Your task to perform on an android device: What is the news today? Image 0: 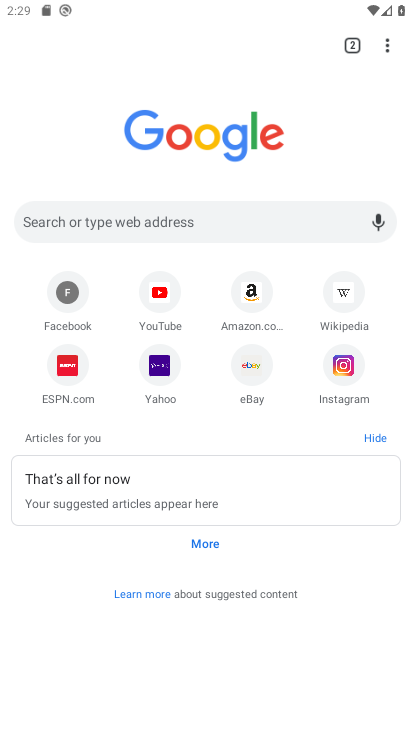
Step 0: click (114, 214)
Your task to perform on an android device: What is the news today? Image 1: 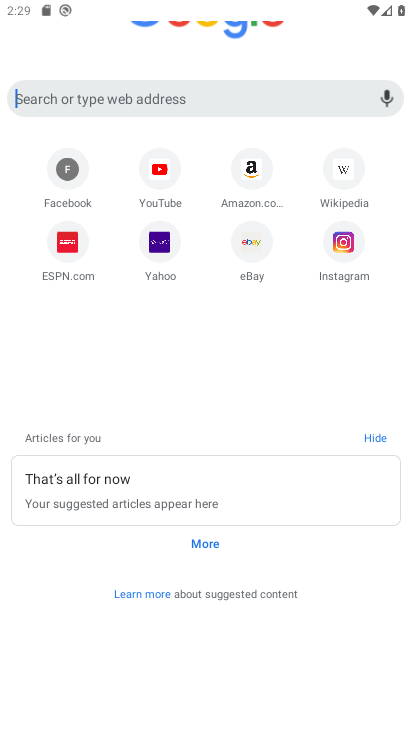
Step 1: click (113, 209)
Your task to perform on an android device: What is the news today? Image 2: 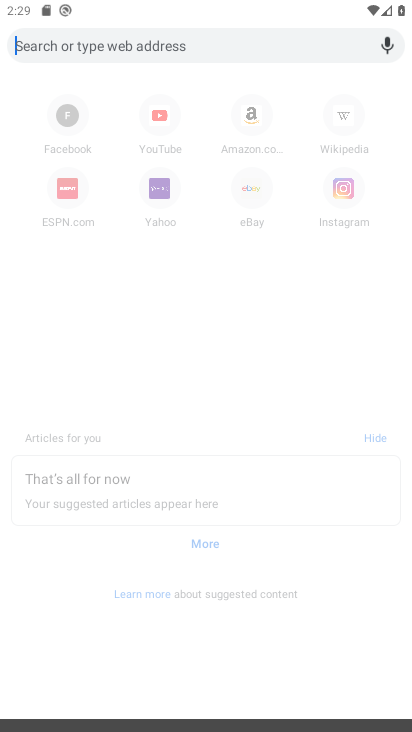
Step 2: click (115, 209)
Your task to perform on an android device: What is the news today? Image 3: 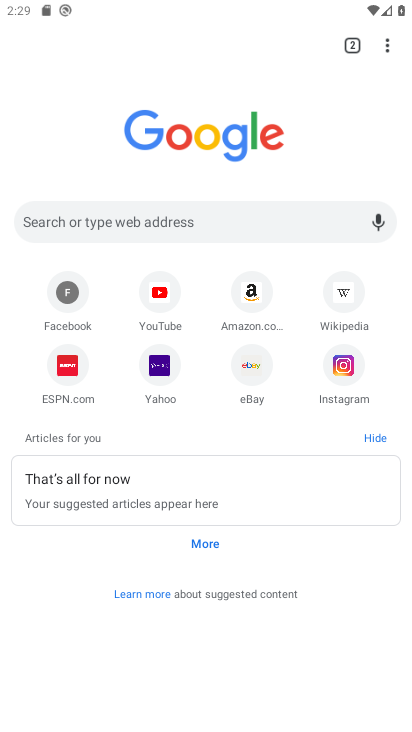
Step 3: drag from (146, 495) to (128, 173)
Your task to perform on an android device: What is the news today? Image 4: 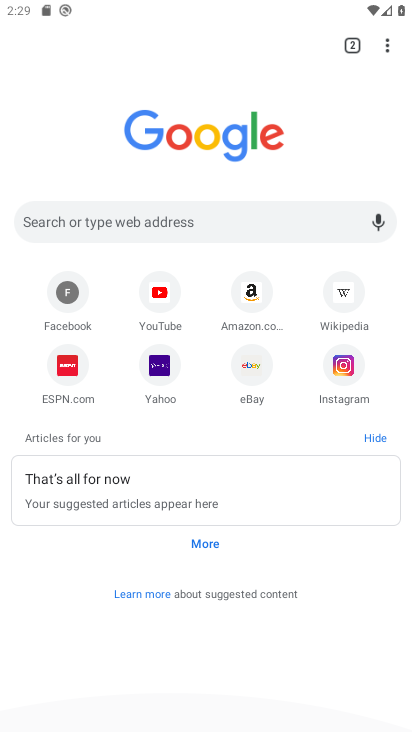
Step 4: drag from (182, 487) to (164, 196)
Your task to perform on an android device: What is the news today? Image 5: 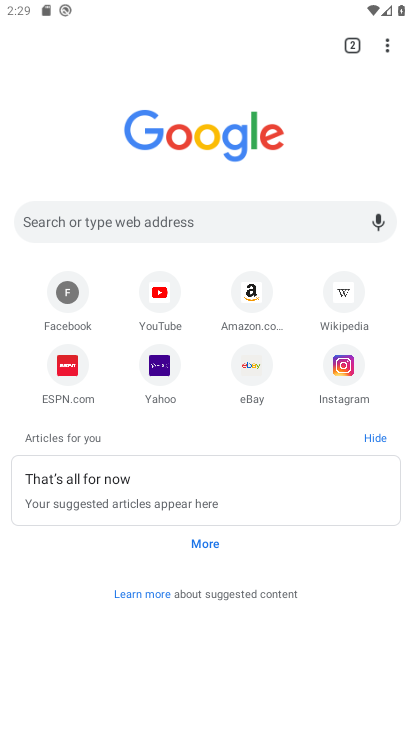
Step 5: click (201, 540)
Your task to perform on an android device: What is the news today? Image 6: 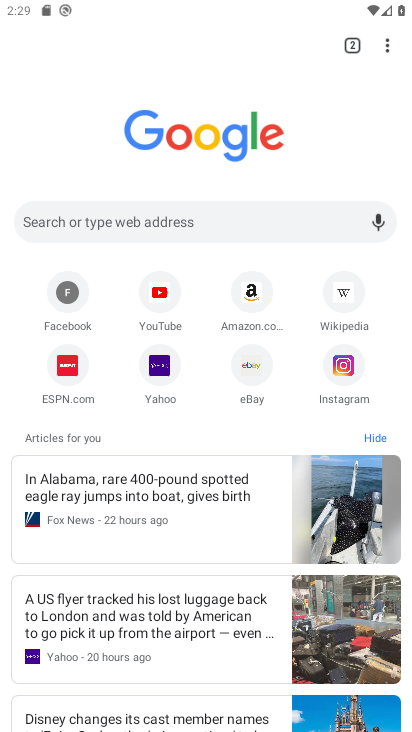
Step 6: task complete